Your task to perform on an android device: What's on my calendar tomorrow? Image 0: 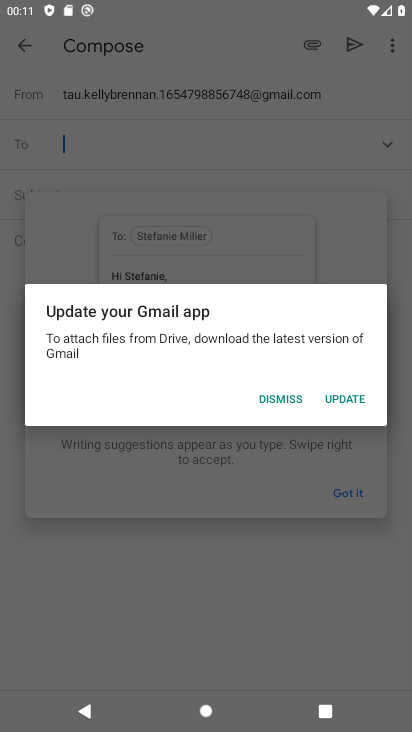
Step 0: press home button
Your task to perform on an android device: What's on my calendar tomorrow? Image 1: 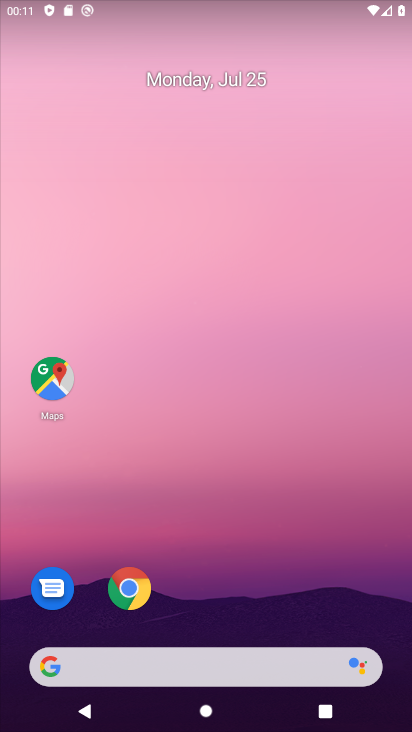
Step 1: drag from (200, 576) to (269, 14)
Your task to perform on an android device: What's on my calendar tomorrow? Image 2: 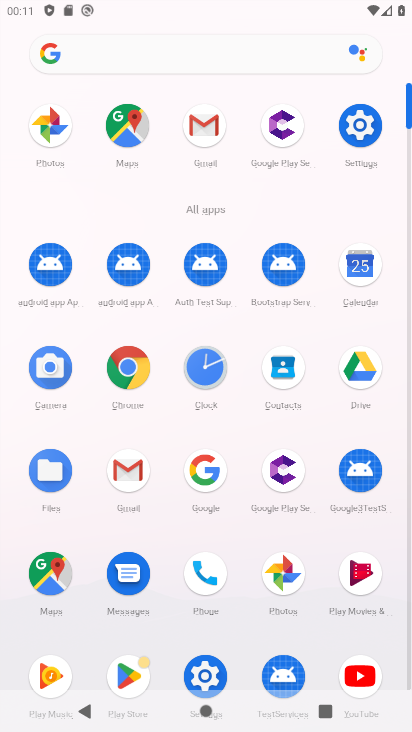
Step 2: click (358, 273)
Your task to perform on an android device: What's on my calendar tomorrow? Image 3: 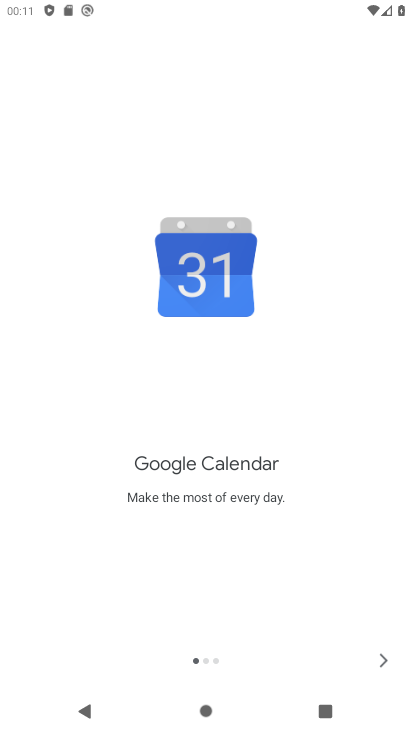
Step 3: click (378, 657)
Your task to perform on an android device: What's on my calendar tomorrow? Image 4: 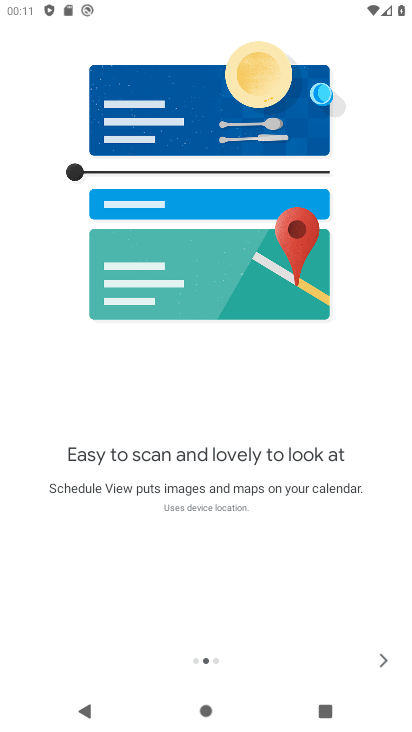
Step 4: click (375, 660)
Your task to perform on an android device: What's on my calendar tomorrow? Image 5: 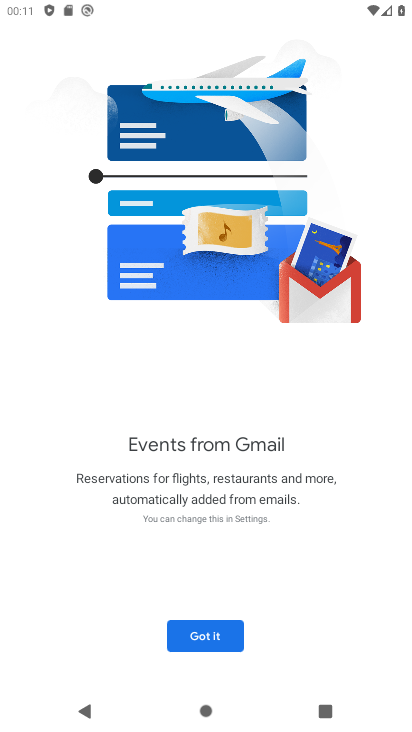
Step 5: click (203, 635)
Your task to perform on an android device: What's on my calendar tomorrow? Image 6: 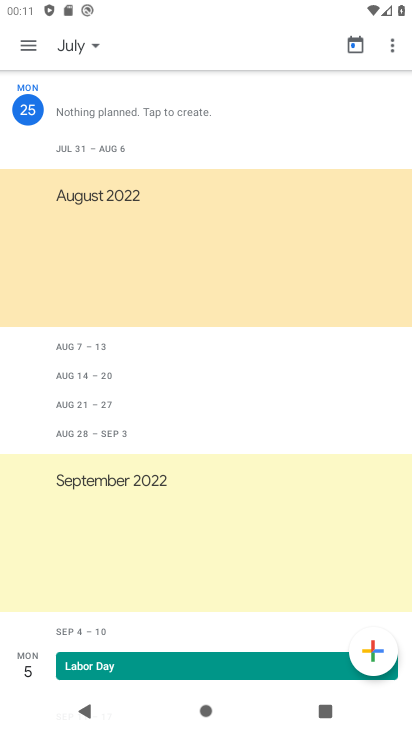
Step 6: click (25, 45)
Your task to perform on an android device: What's on my calendar tomorrow? Image 7: 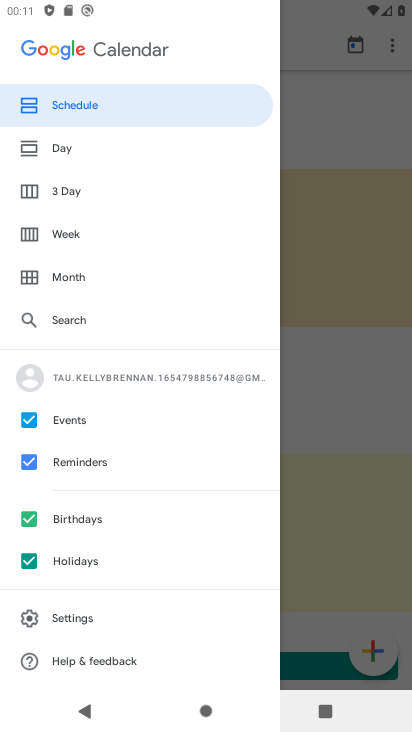
Step 7: click (67, 189)
Your task to perform on an android device: What's on my calendar tomorrow? Image 8: 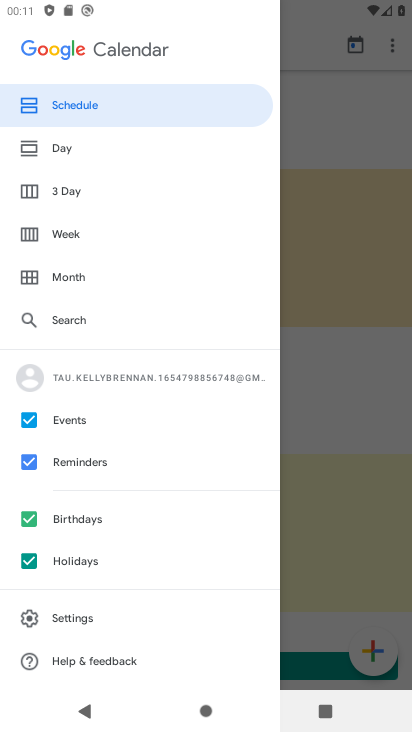
Step 8: click (80, 197)
Your task to perform on an android device: What's on my calendar tomorrow? Image 9: 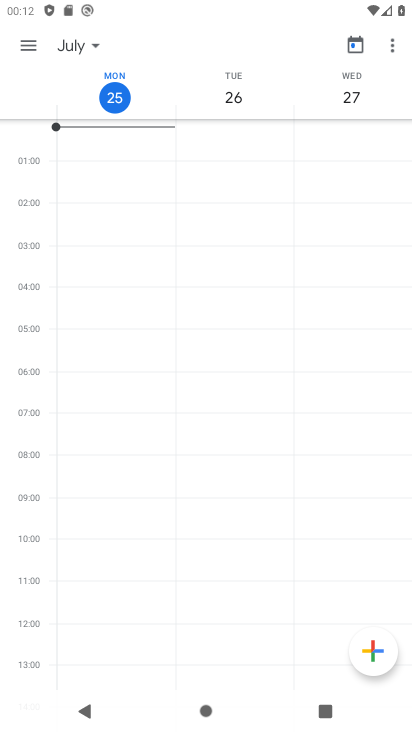
Step 9: task complete